Your task to perform on an android device: Go to Wikipedia Image 0: 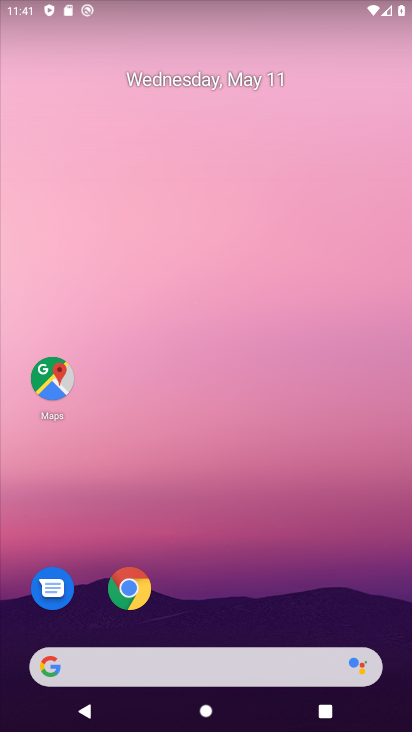
Step 0: click (130, 591)
Your task to perform on an android device: Go to Wikipedia Image 1: 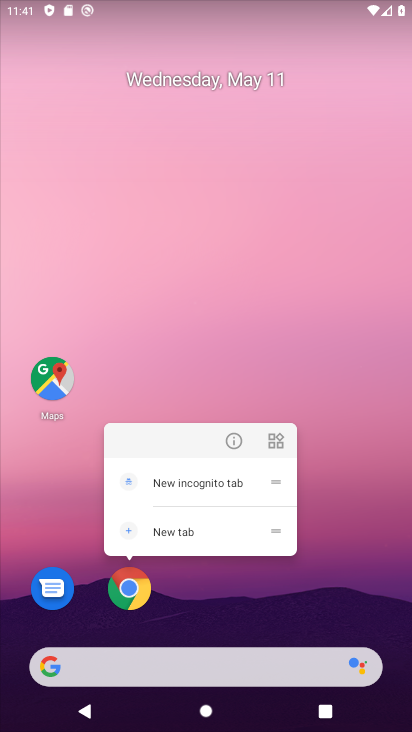
Step 1: click (130, 591)
Your task to perform on an android device: Go to Wikipedia Image 2: 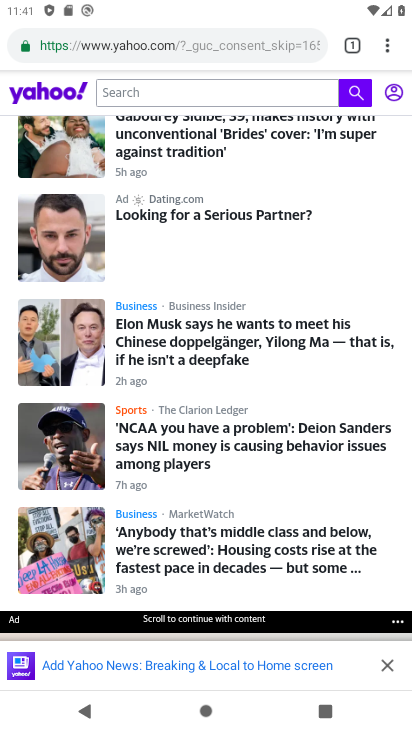
Step 2: click (361, 49)
Your task to perform on an android device: Go to Wikipedia Image 3: 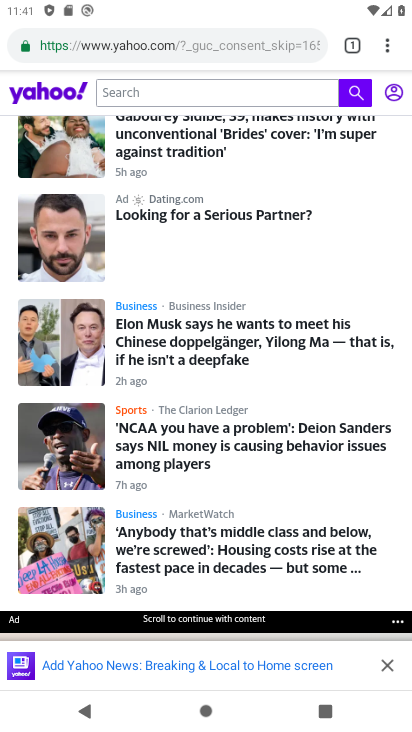
Step 3: click (348, 45)
Your task to perform on an android device: Go to Wikipedia Image 4: 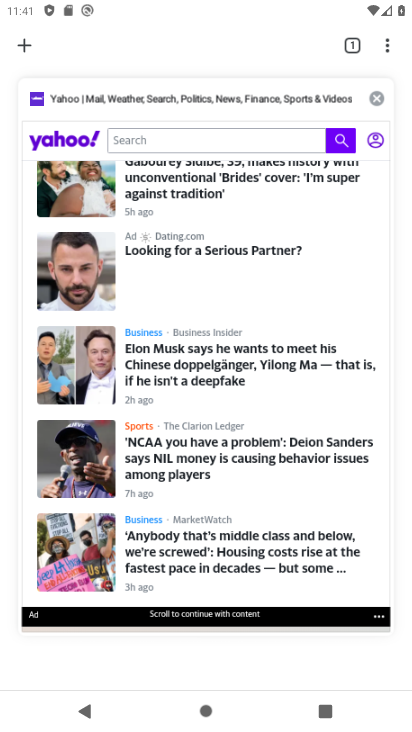
Step 4: click (23, 47)
Your task to perform on an android device: Go to Wikipedia Image 5: 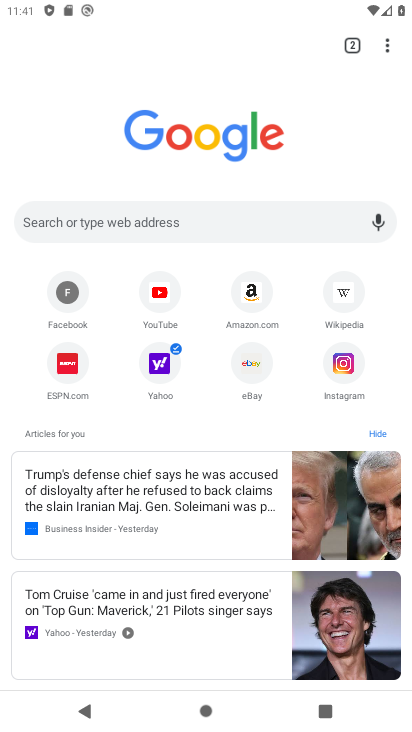
Step 5: click (339, 289)
Your task to perform on an android device: Go to Wikipedia Image 6: 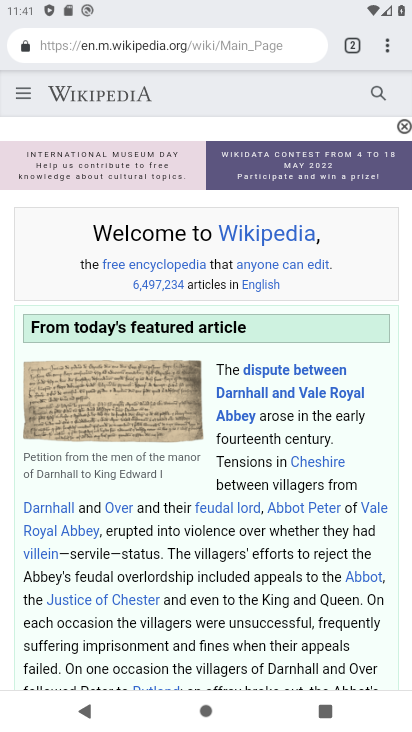
Step 6: task complete